Your task to perform on an android device: check google app version Image 0: 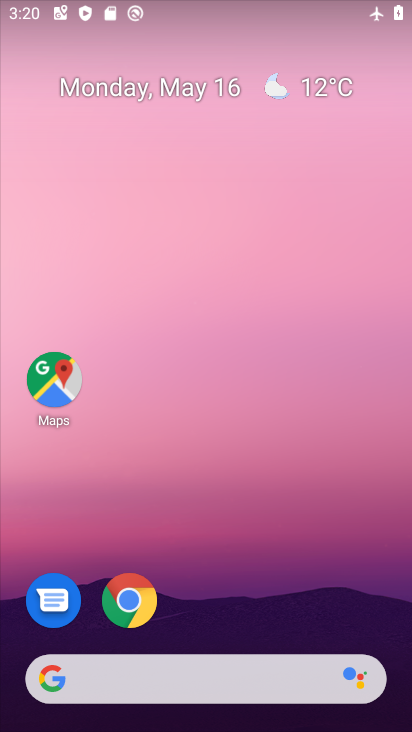
Step 0: drag from (213, 640) to (141, 23)
Your task to perform on an android device: check google app version Image 1: 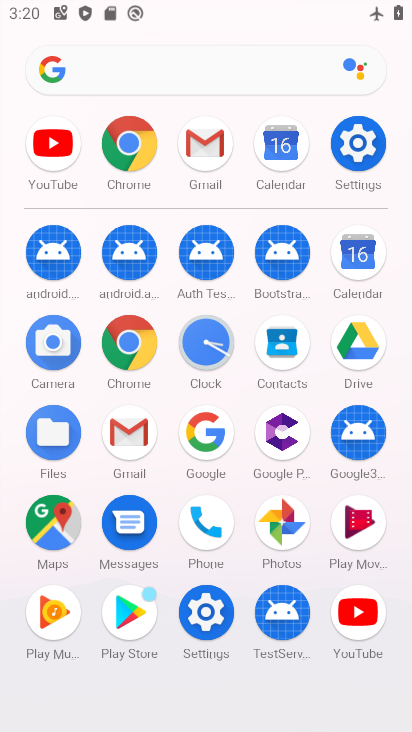
Step 1: click (204, 426)
Your task to perform on an android device: check google app version Image 2: 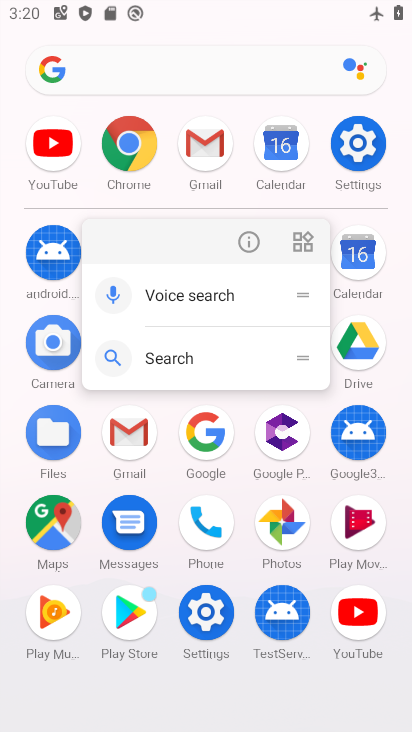
Step 2: click (251, 238)
Your task to perform on an android device: check google app version Image 3: 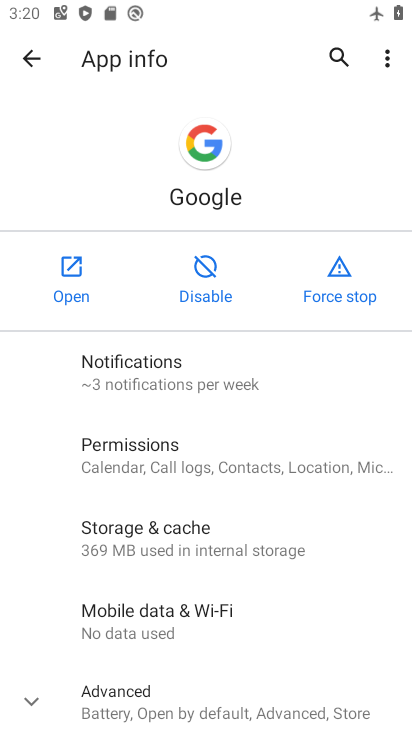
Step 3: drag from (266, 569) to (206, 17)
Your task to perform on an android device: check google app version Image 4: 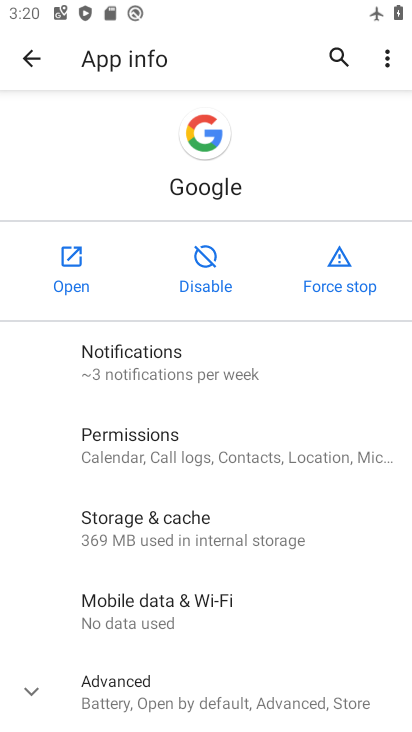
Step 4: drag from (143, 600) to (114, 129)
Your task to perform on an android device: check google app version Image 5: 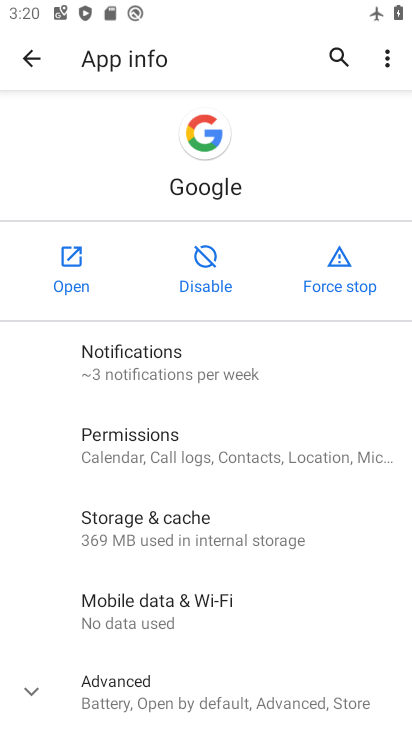
Step 5: click (144, 712)
Your task to perform on an android device: check google app version Image 6: 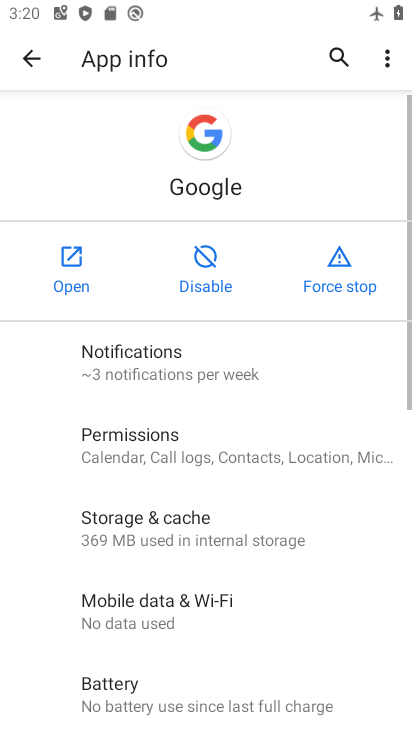
Step 6: task complete